Your task to perform on an android device: Check the news Image 0: 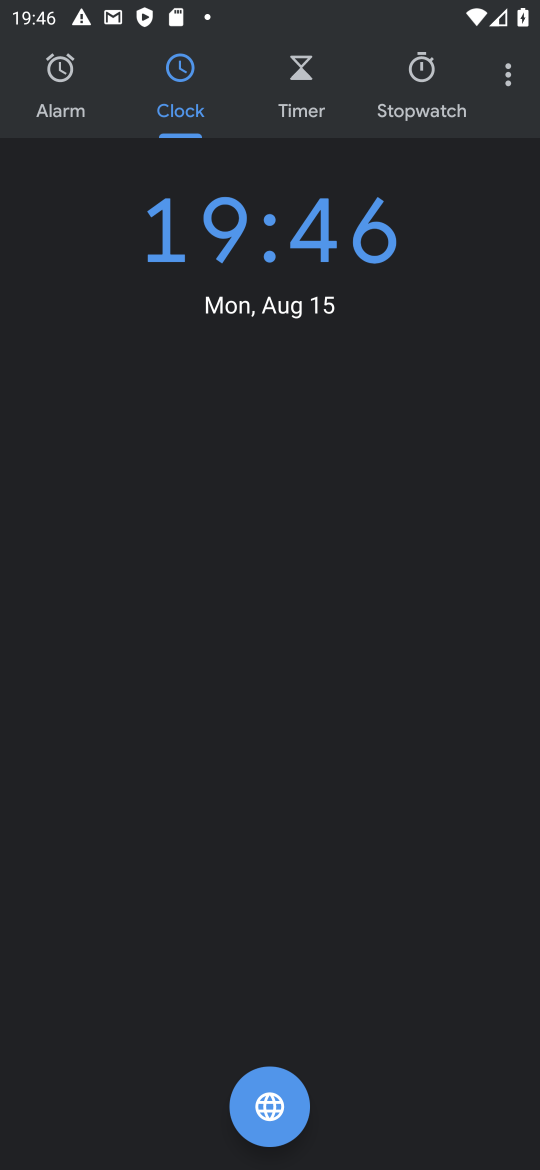
Step 0: press home button
Your task to perform on an android device: Check the news Image 1: 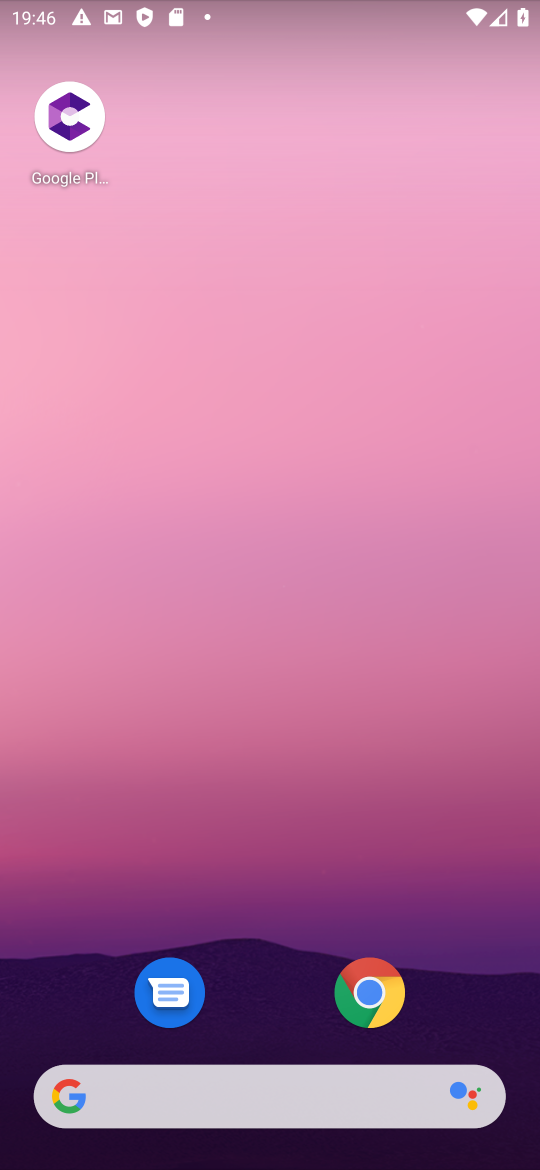
Step 1: click (193, 1098)
Your task to perform on an android device: Check the news Image 2: 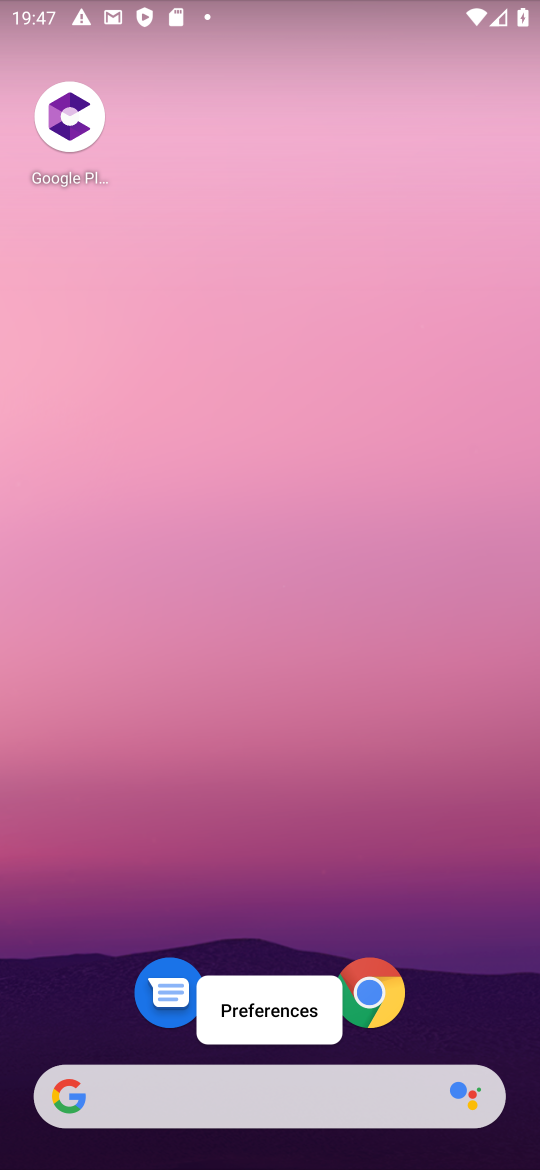
Step 2: click (181, 1094)
Your task to perform on an android device: Check the news Image 3: 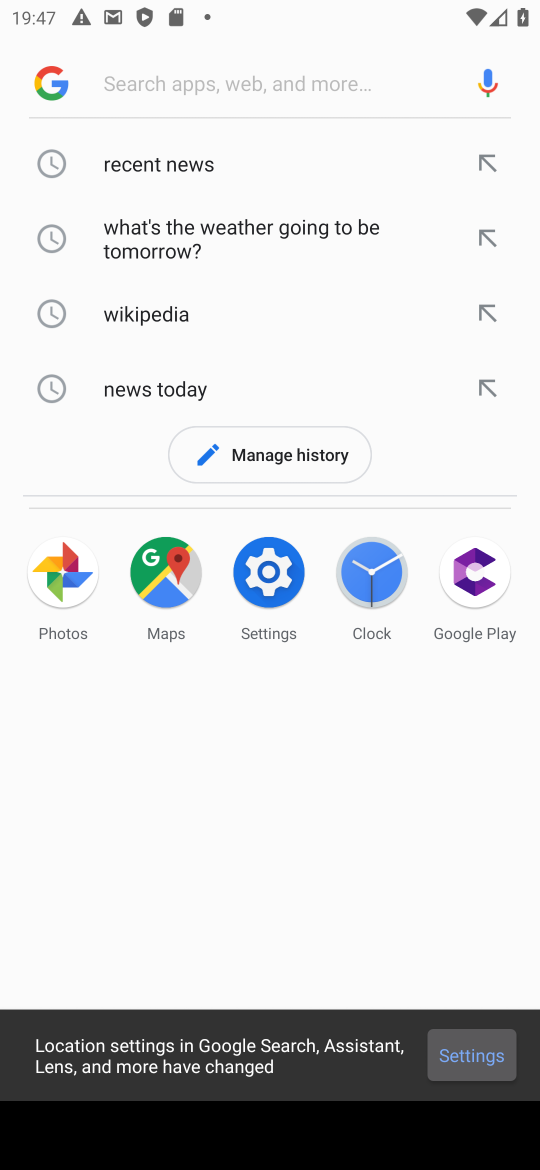
Step 3: click (187, 168)
Your task to perform on an android device: Check the news Image 4: 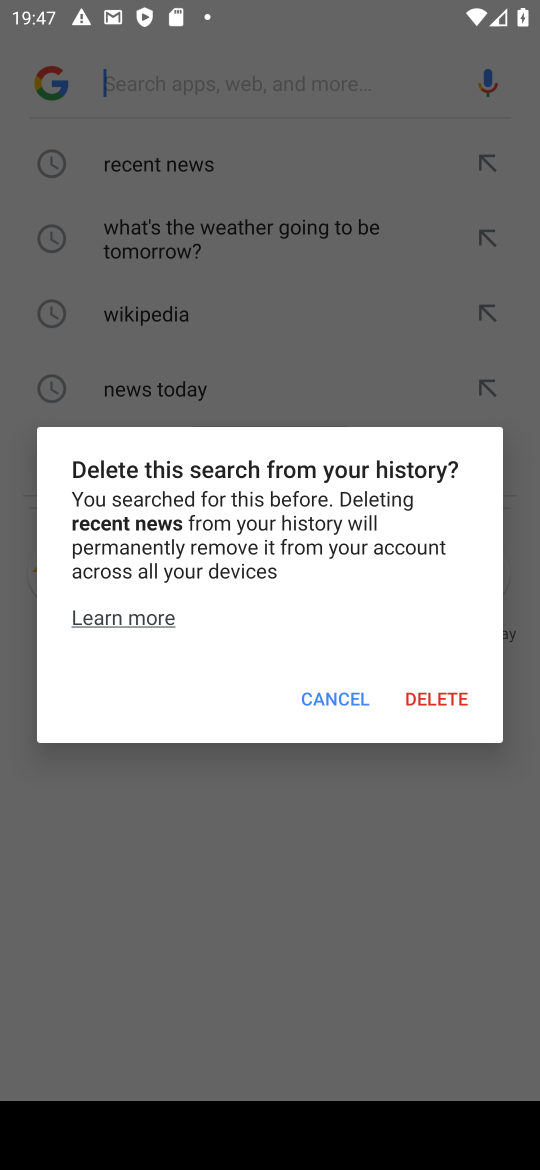
Step 4: click (326, 697)
Your task to perform on an android device: Check the news Image 5: 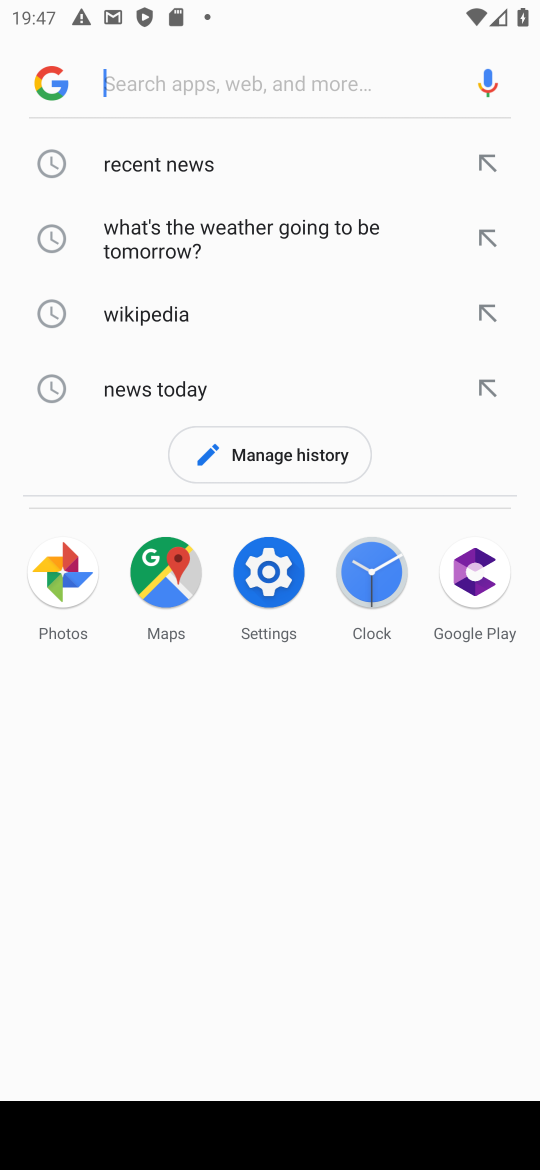
Step 5: click (487, 155)
Your task to perform on an android device: Check the news Image 6: 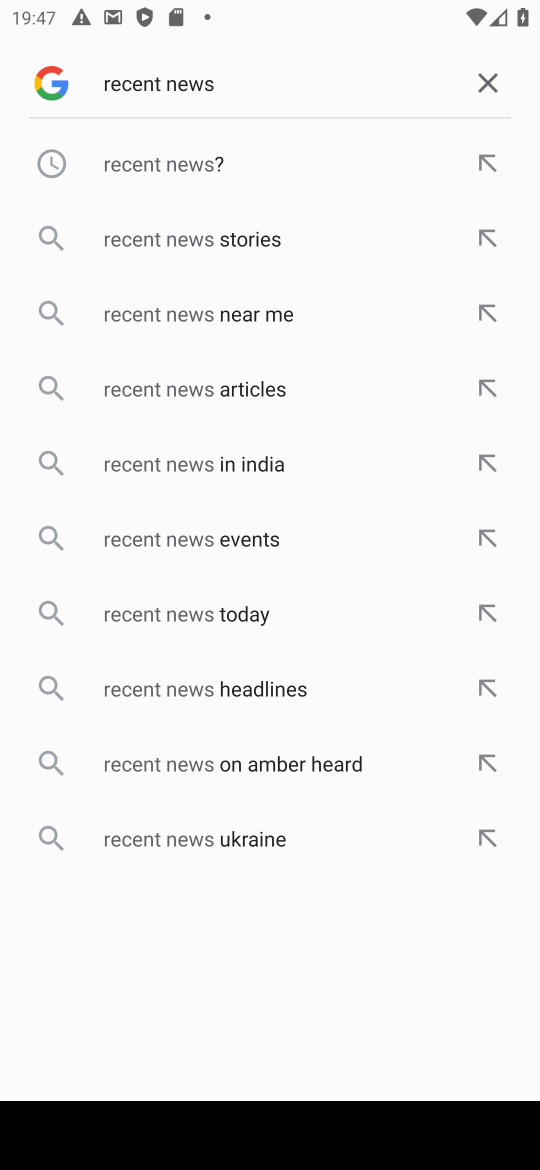
Step 6: click (490, 158)
Your task to perform on an android device: Check the news Image 7: 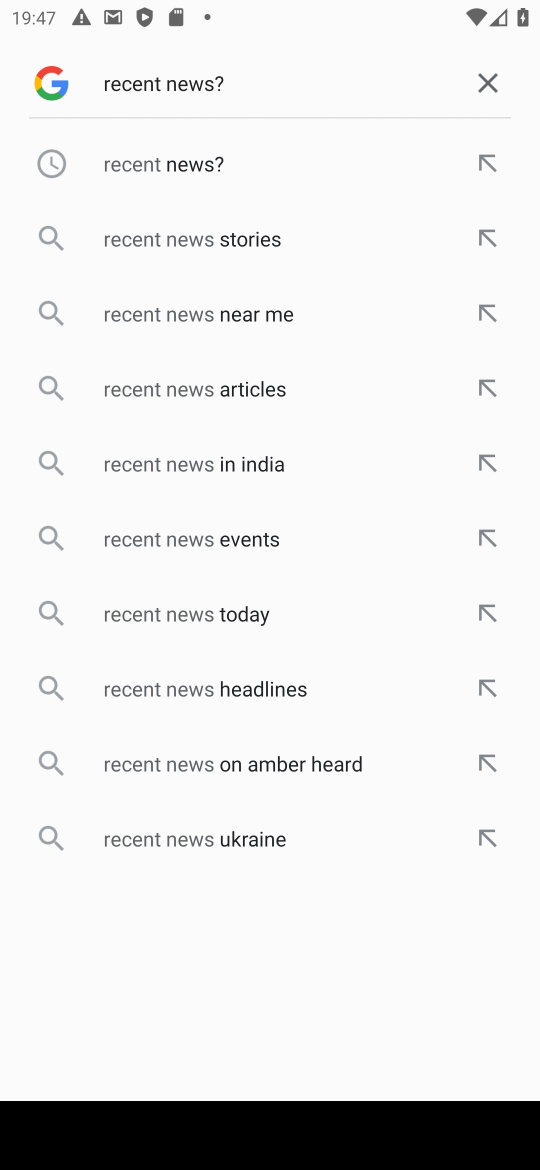
Step 7: click (481, 161)
Your task to perform on an android device: Check the news Image 8: 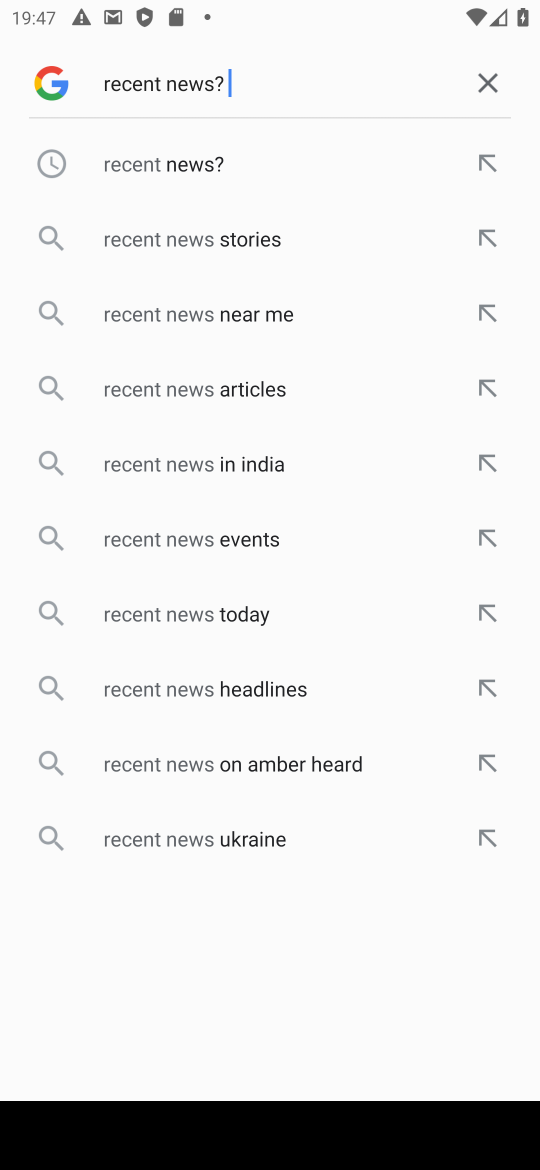
Step 8: click (240, 159)
Your task to perform on an android device: Check the news Image 9: 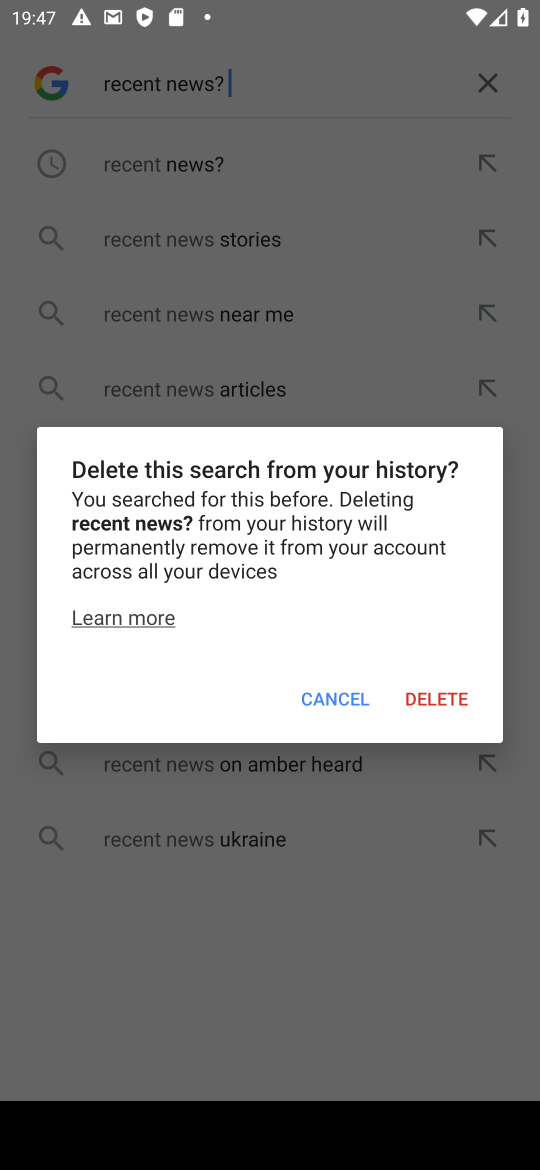
Step 9: click (324, 689)
Your task to perform on an android device: Check the news Image 10: 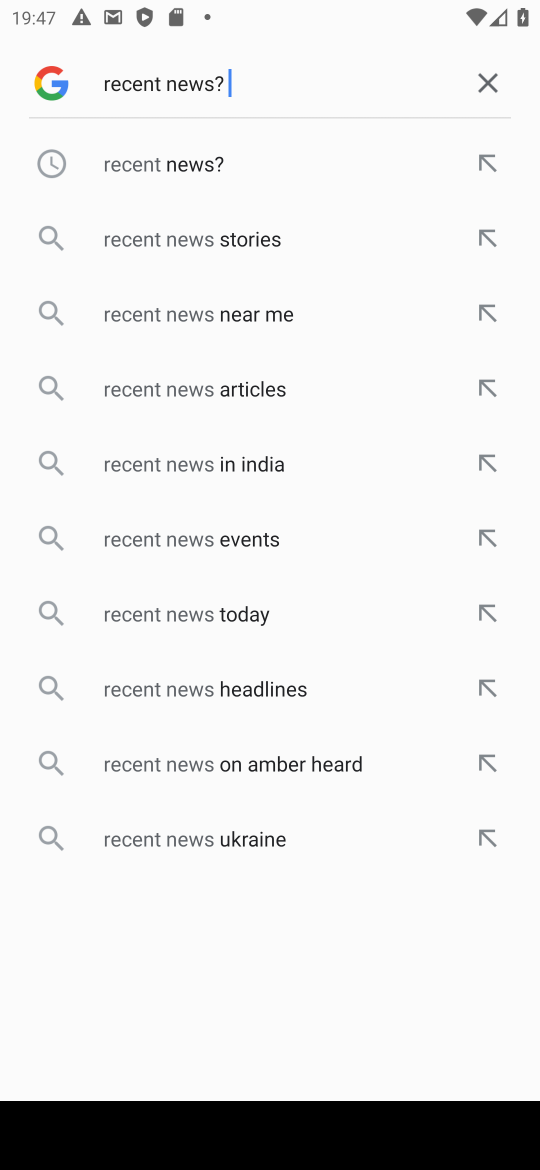
Step 10: click (492, 152)
Your task to perform on an android device: Check the news Image 11: 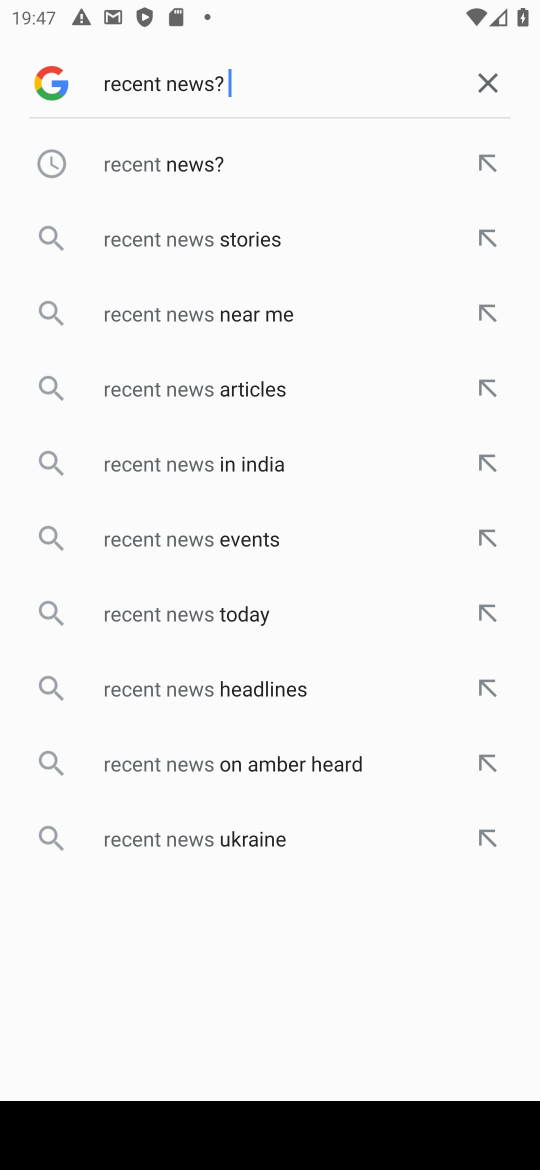
Step 11: click (267, 242)
Your task to perform on an android device: Check the news Image 12: 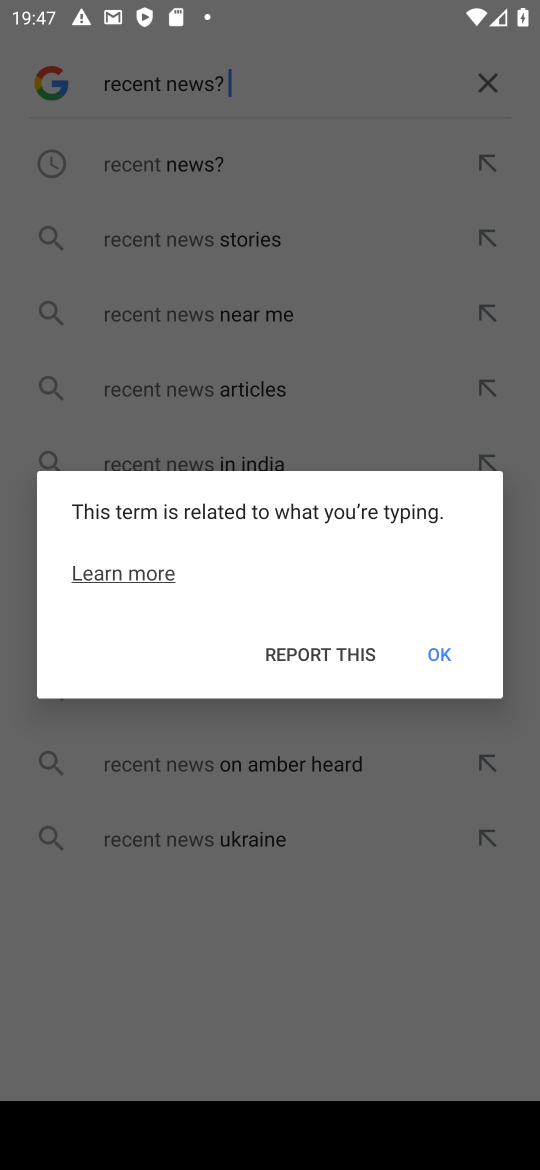
Step 12: click (198, 908)
Your task to perform on an android device: Check the news Image 13: 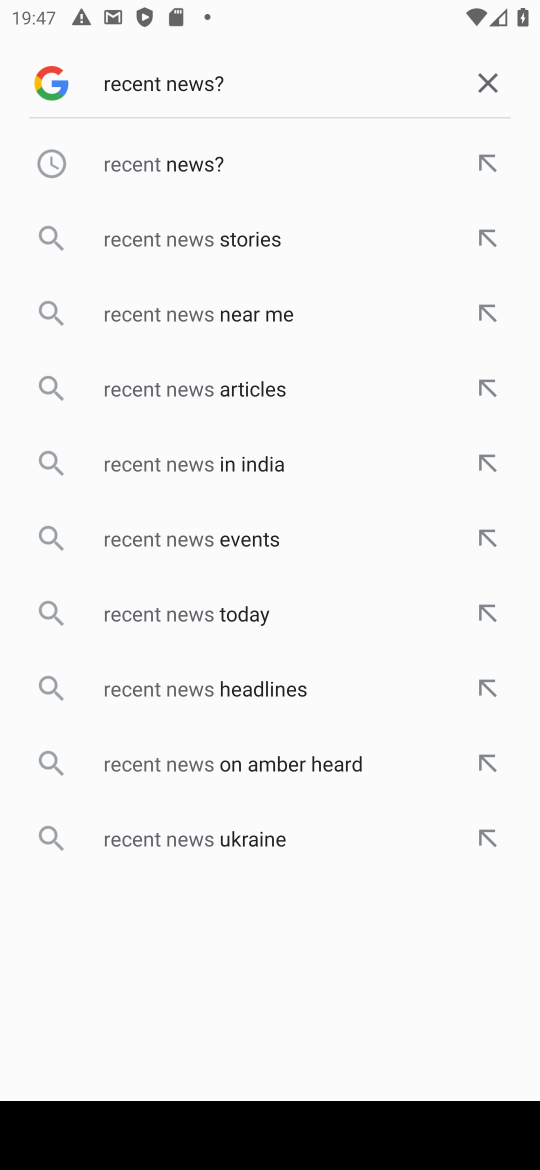
Step 13: click (193, 167)
Your task to perform on an android device: Check the news Image 14: 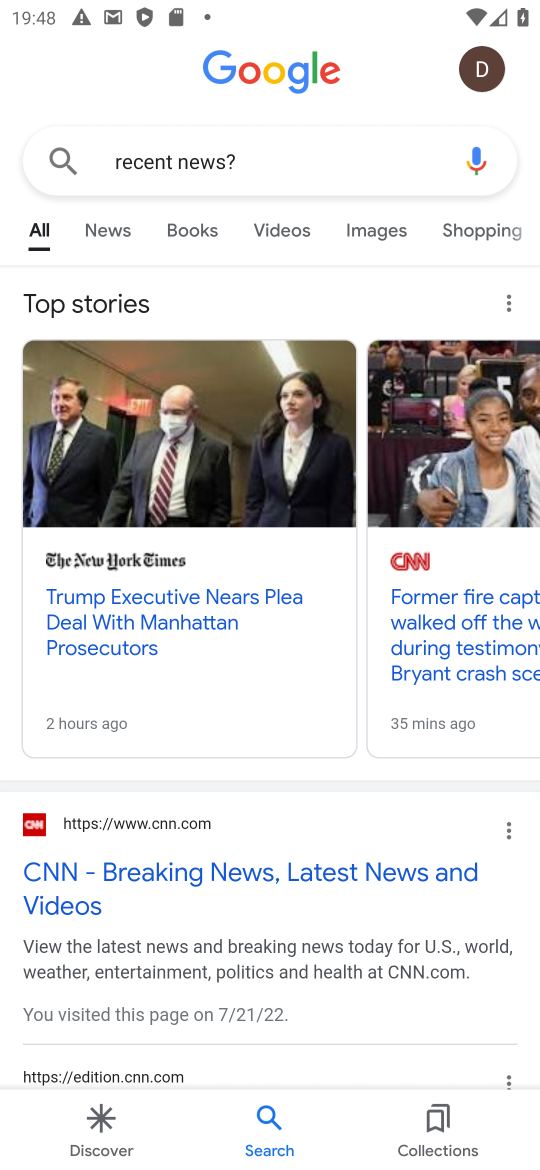
Step 14: click (119, 233)
Your task to perform on an android device: Check the news Image 15: 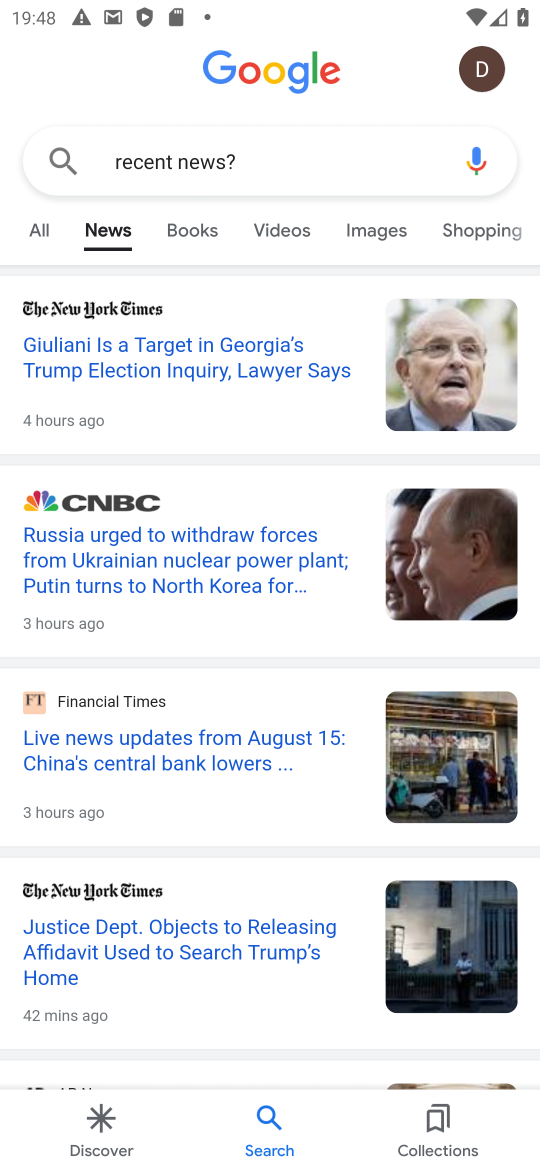
Step 15: task complete